Your task to perform on an android device: open wifi settings Image 0: 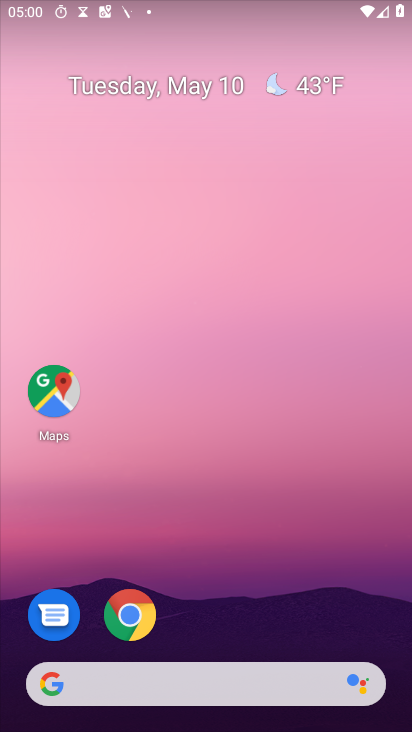
Step 0: drag from (269, 655) to (316, 101)
Your task to perform on an android device: open wifi settings Image 1: 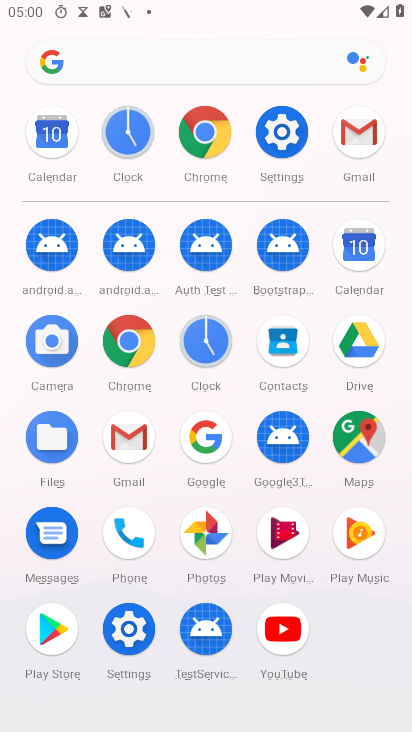
Step 1: click (281, 136)
Your task to perform on an android device: open wifi settings Image 2: 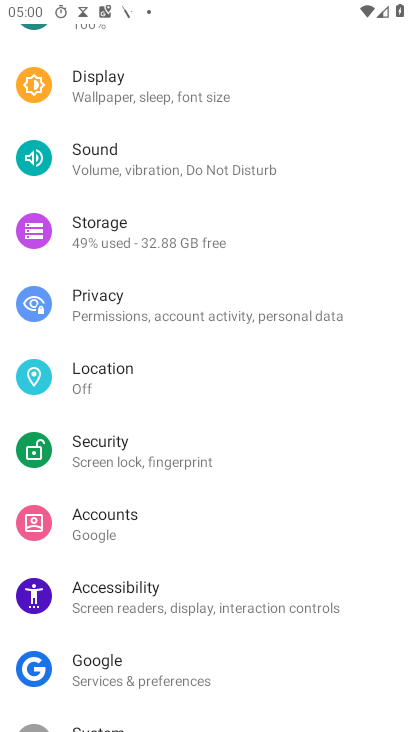
Step 2: drag from (198, 252) to (193, 596)
Your task to perform on an android device: open wifi settings Image 3: 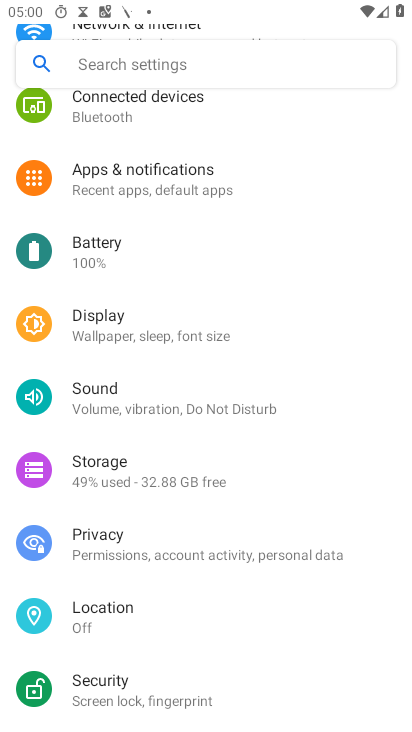
Step 3: drag from (189, 164) to (185, 660)
Your task to perform on an android device: open wifi settings Image 4: 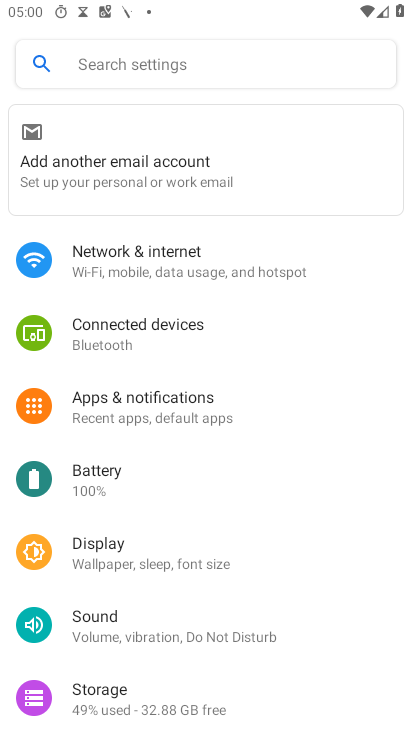
Step 4: click (214, 262)
Your task to perform on an android device: open wifi settings Image 5: 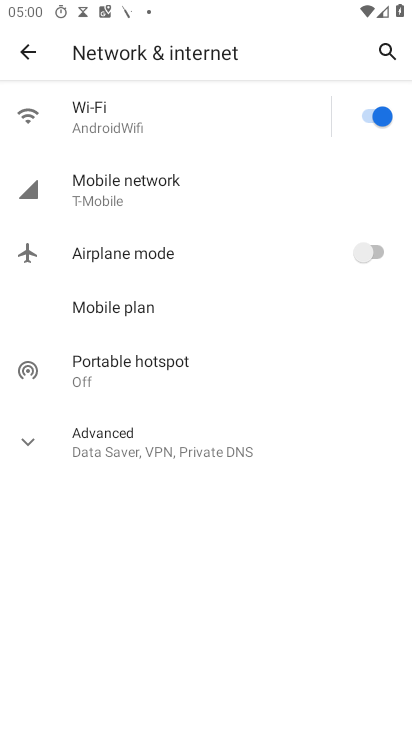
Step 5: click (156, 122)
Your task to perform on an android device: open wifi settings Image 6: 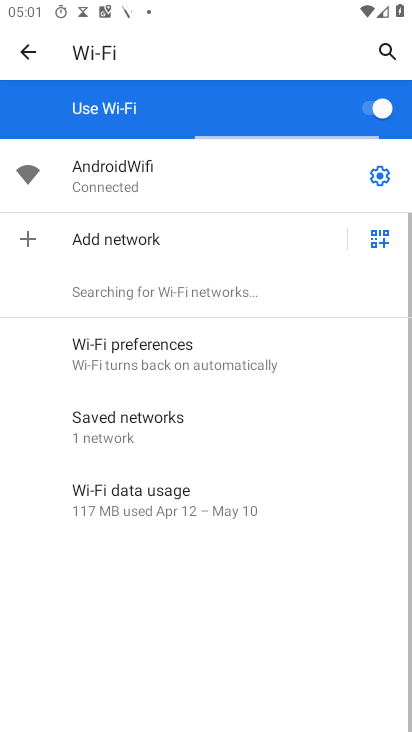
Step 6: task complete